Your task to perform on an android device: toggle priority inbox in the gmail app Image 0: 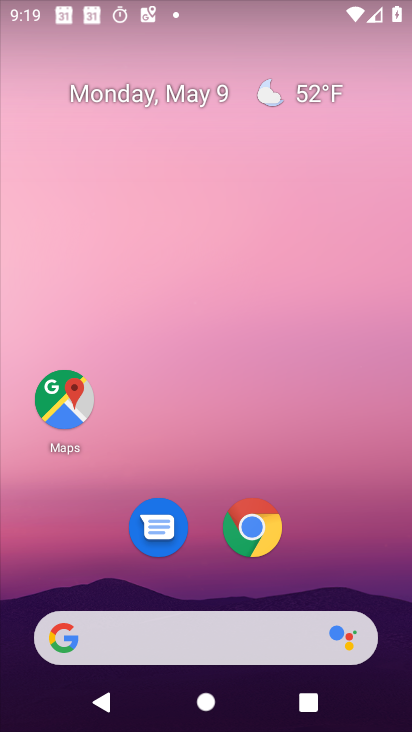
Step 0: drag from (367, 573) to (333, 124)
Your task to perform on an android device: toggle priority inbox in the gmail app Image 1: 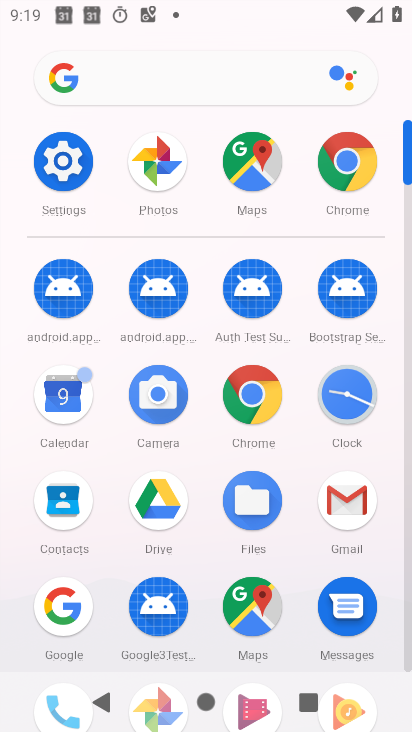
Step 1: click (359, 504)
Your task to perform on an android device: toggle priority inbox in the gmail app Image 2: 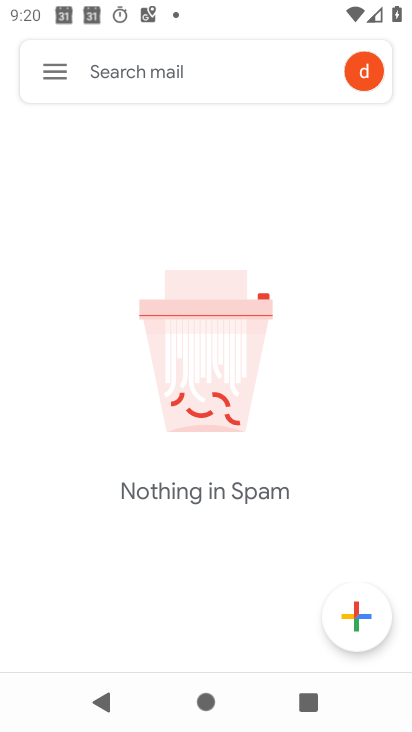
Step 2: click (51, 81)
Your task to perform on an android device: toggle priority inbox in the gmail app Image 3: 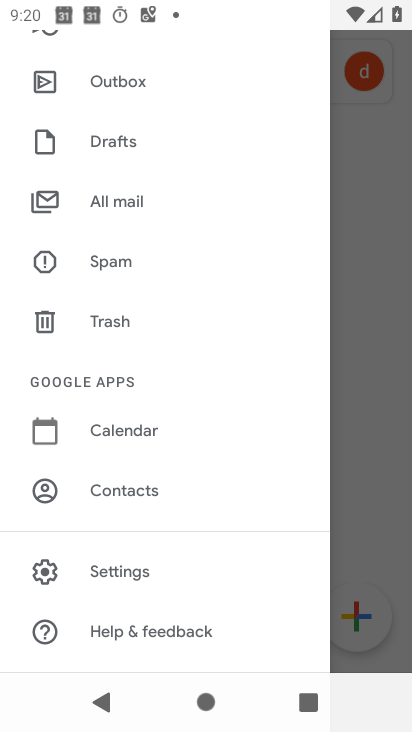
Step 3: click (113, 582)
Your task to perform on an android device: toggle priority inbox in the gmail app Image 4: 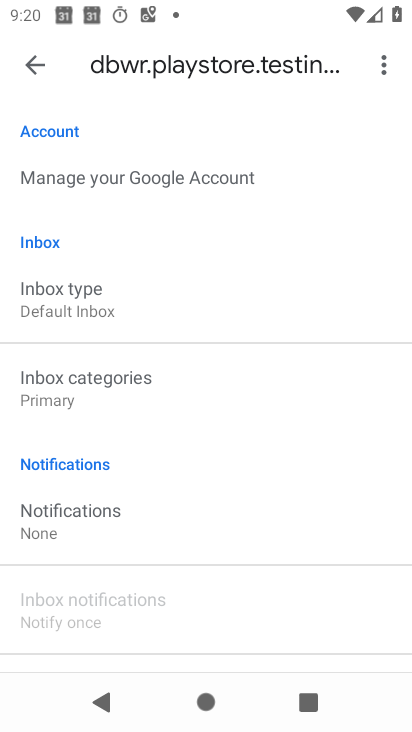
Step 4: click (91, 316)
Your task to perform on an android device: toggle priority inbox in the gmail app Image 5: 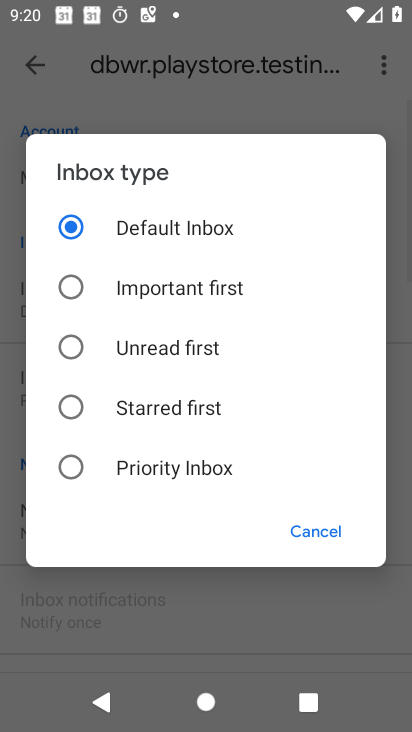
Step 5: click (71, 472)
Your task to perform on an android device: toggle priority inbox in the gmail app Image 6: 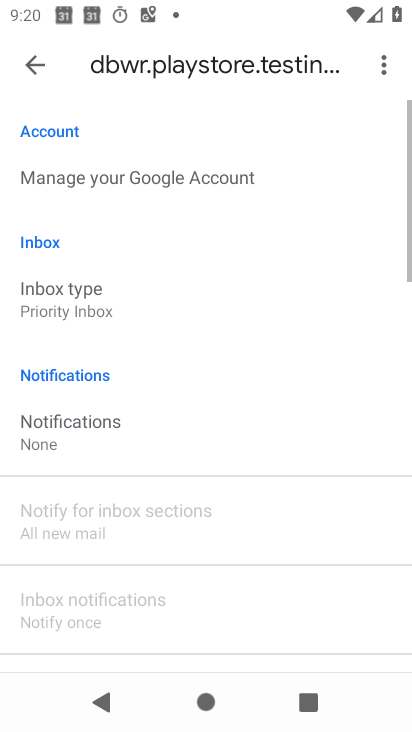
Step 6: task complete